Your task to perform on an android device: toggle translation in the chrome app Image 0: 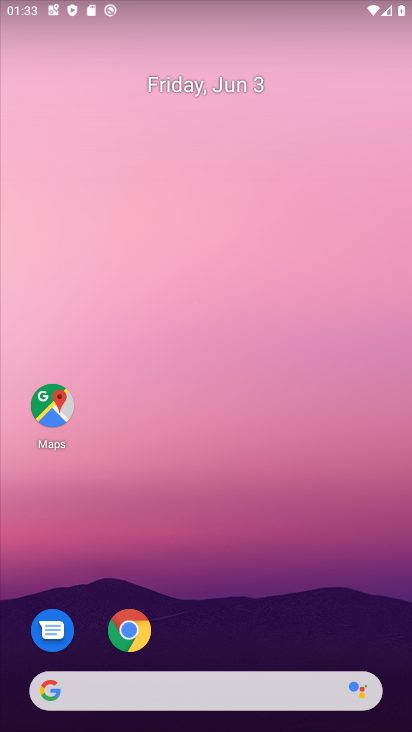
Step 0: click (156, 143)
Your task to perform on an android device: toggle translation in the chrome app Image 1: 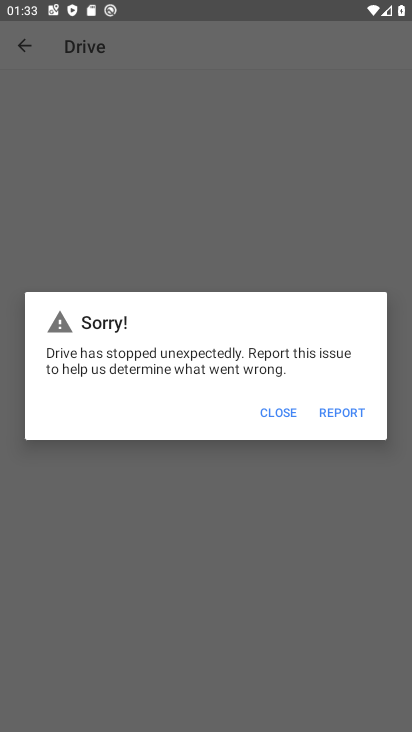
Step 1: press home button
Your task to perform on an android device: toggle translation in the chrome app Image 2: 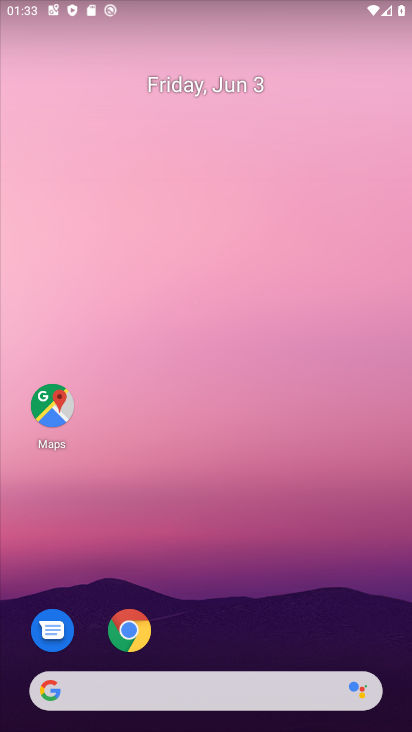
Step 2: drag from (230, 622) to (208, 180)
Your task to perform on an android device: toggle translation in the chrome app Image 3: 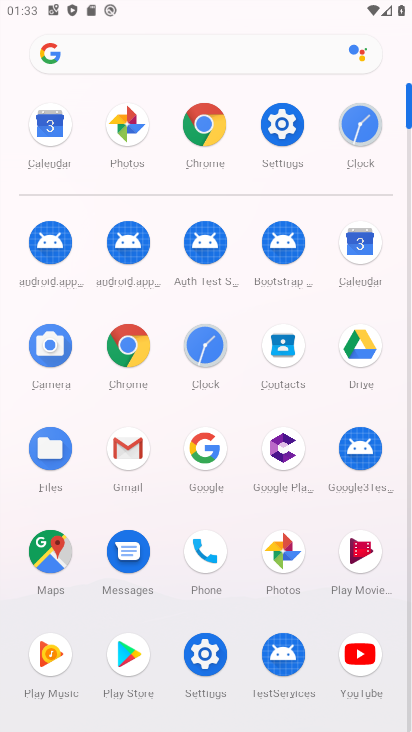
Step 3: click (211, 131)
Your task to perform on an android device: toggle translation in the chrome app Image 4: 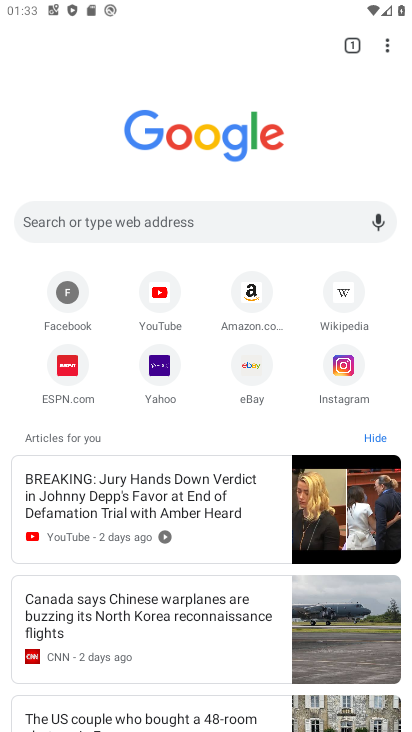
Step 4: click (391, 44)
Your task to perform on an android device: toggle translation in the chrome app Image 5: 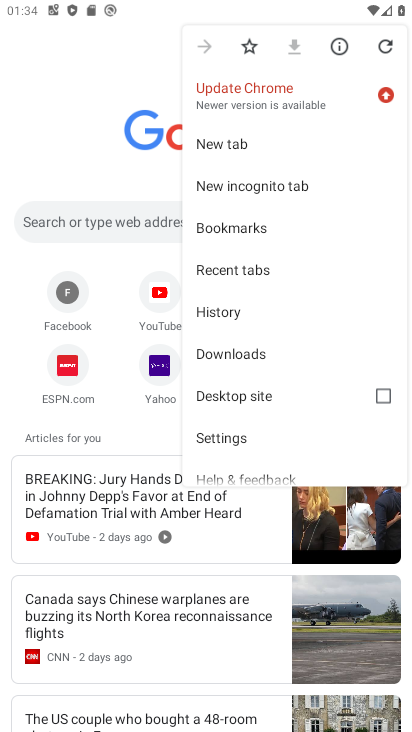
Step 5: click (252, 440)
Your task to perform on an android device: toggle translation in the chrome app Image 6: 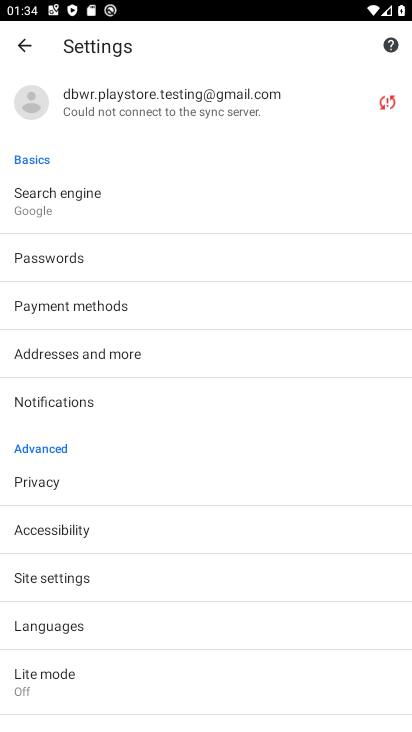
Step 6: click (132, 625)
Your task to perform on an android device: toggle translation in the chrome app Image 7: 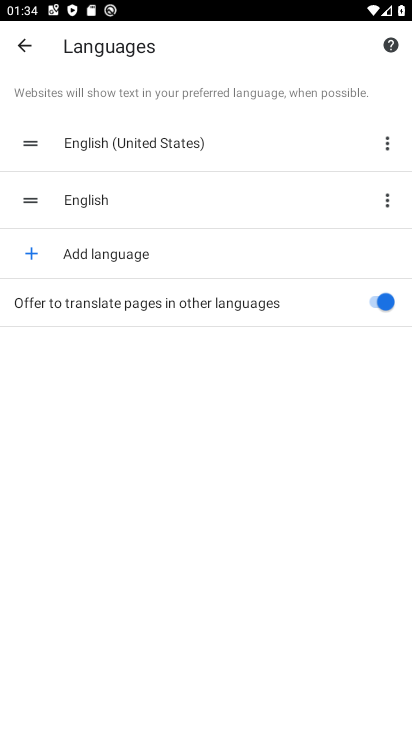
Step 7: click (381, 306)
Your task to perform on an android device: toggle translation in the chrome app Image 8: 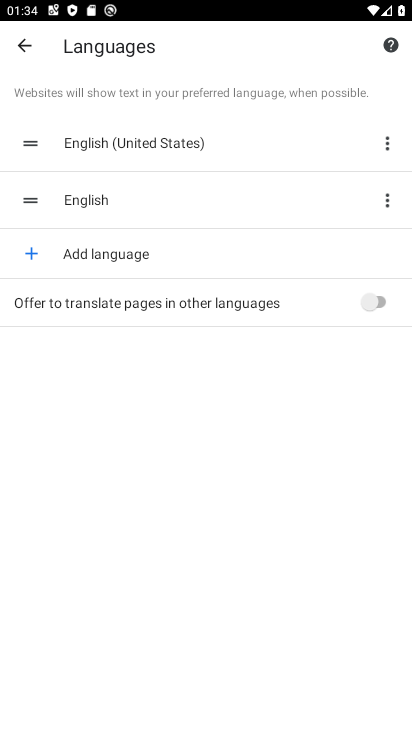
Step 8: task complete